Your task to perform on an android device: Open my contact list Image 0: 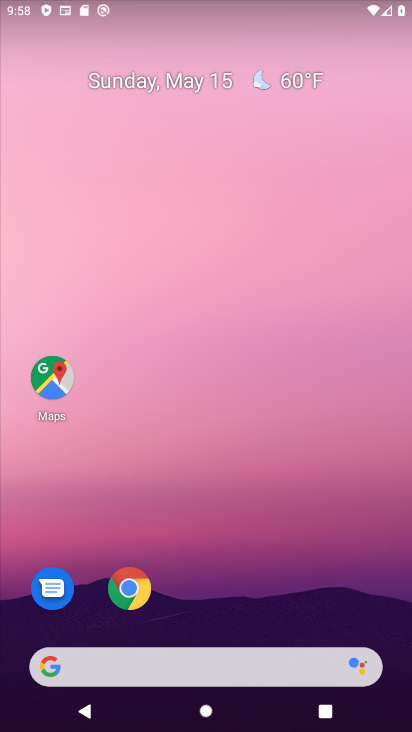
Step 0: drag from (226, 628) to (268, 245)
Your task to perform on an android device: Open my contact list Image 1: 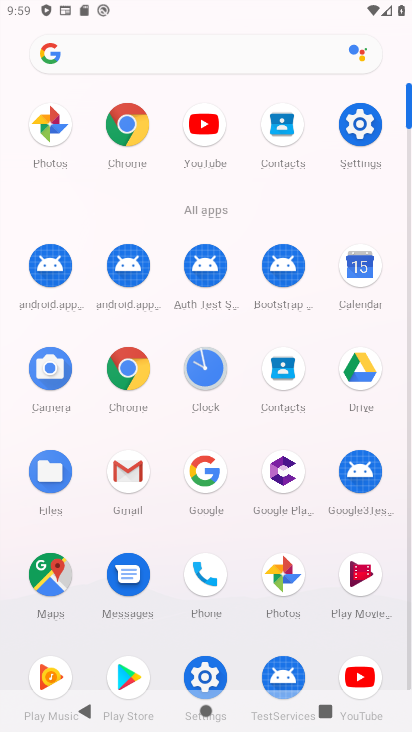
Step 1: click (292, 376)
Your task to perform on an android device: Open my contact list Image 2: 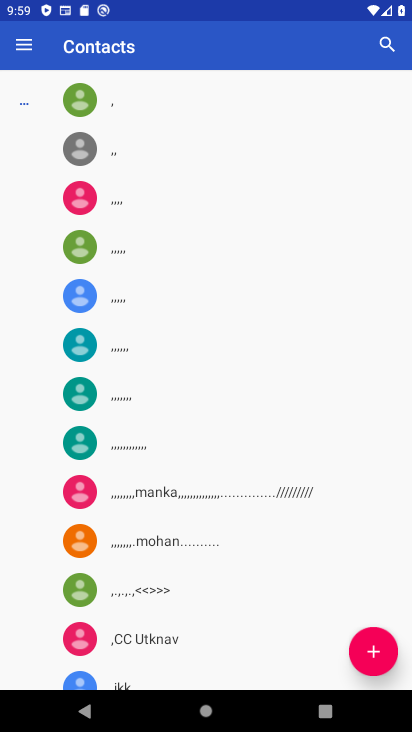
Step 2: task complete